Your task to perform on an android device: Open the phone app and click the voicemail tab. Image 0: 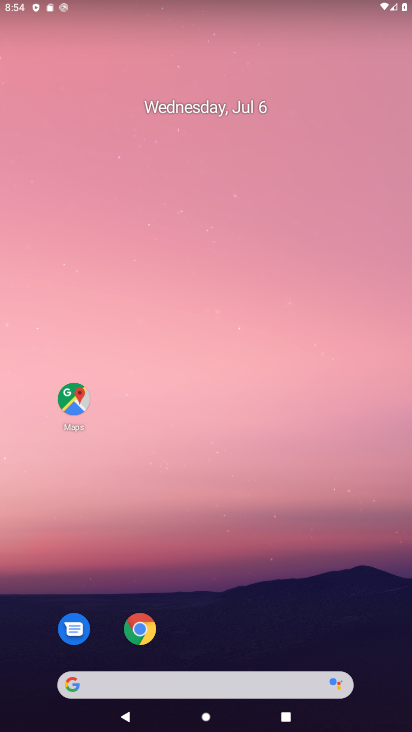
Step 0: drag from (206, 658) to (315, 154)
Your task to perform on an android device: Open the phone app and click the voicemail tab. Image 1: 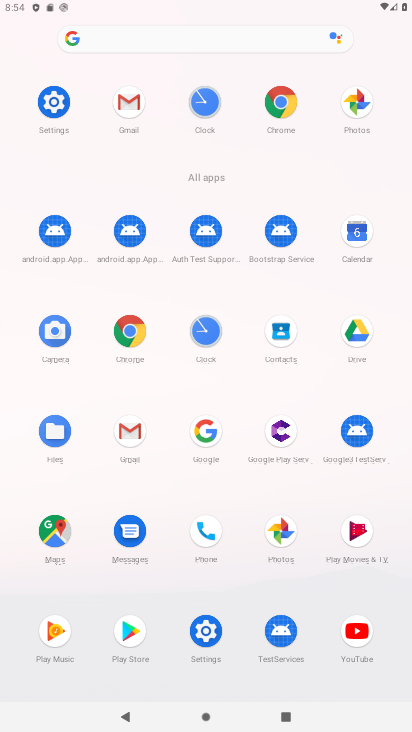
Step 1: drag from (236, 598) to (255, 232)
Your task to perform on an android device: Open the phone app and click the voicemail tab. Image 2: 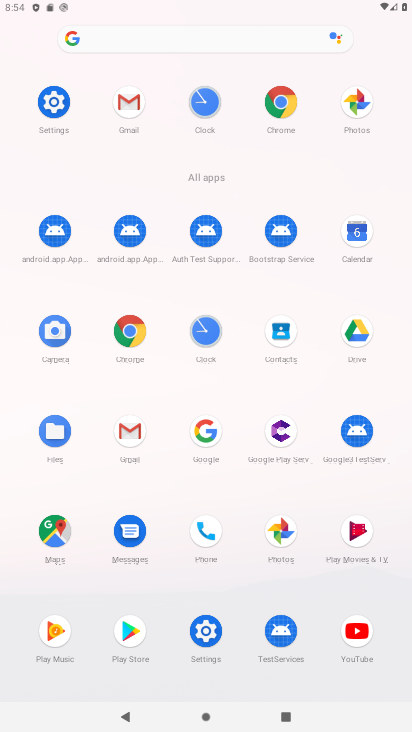
Step 2: click (208, 527)
Your task to perform on an android device: Open the phone app and click the voicemail tab. Image 3: 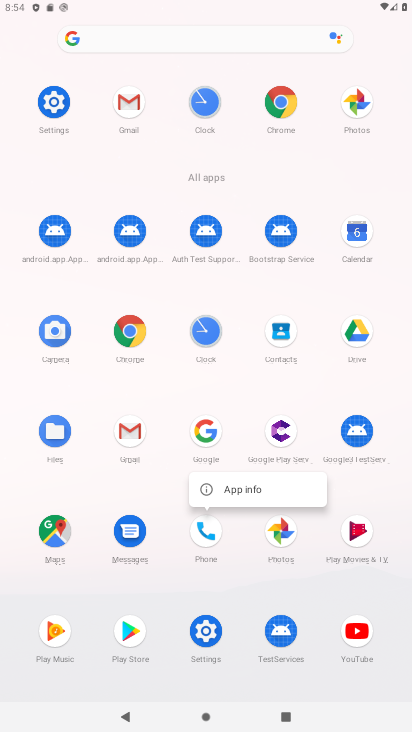
Step 3: click (208, 527)
Your task to perform on an android device: Open the phone app and click the voicemail tab. Image 4: 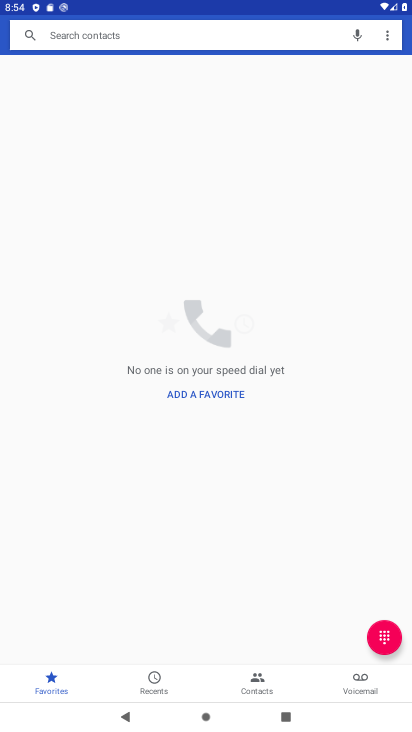
Step 4: click (357, 681)
Your task to perform on an android device: Open the phone app and click the voicemail tab. Image 5: 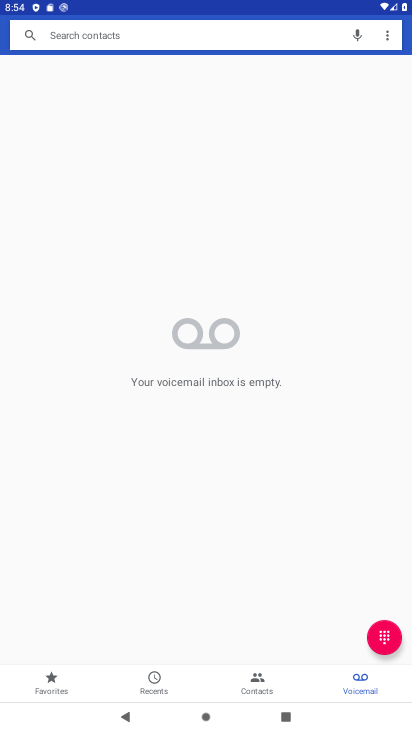
Step 5: task complete